Your task to perform on an android device: Show me popular games on the Play Store Image 0: 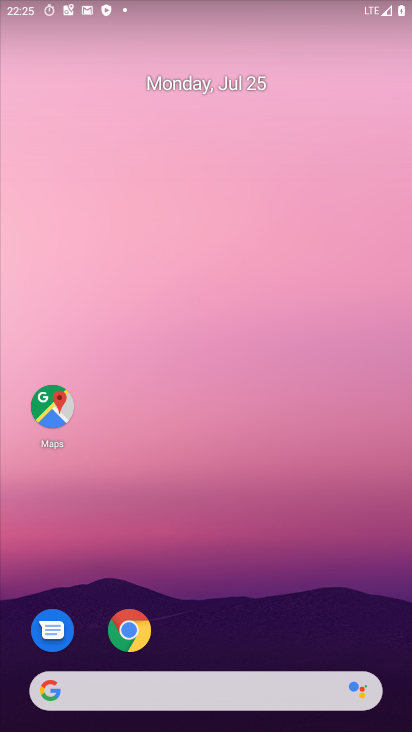
Step 0: press home button
Your task to perform on an android device: Show me popular games on the Play Store Image 1: 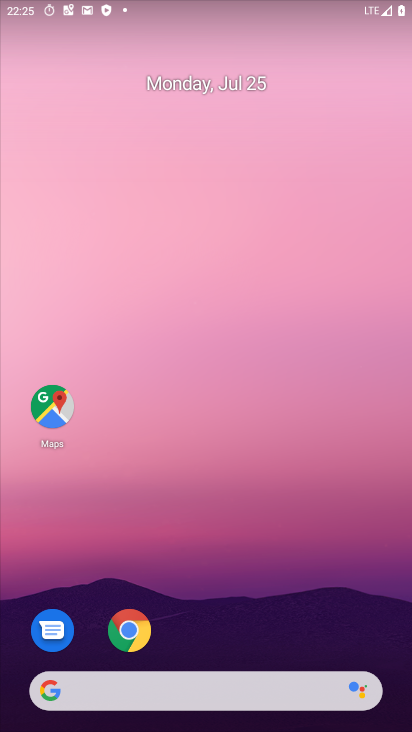
Step 1: drag from (236, 635) to (204, 119)
Your task to perform on an android device: Show me popular games on the Play Store Image 2: 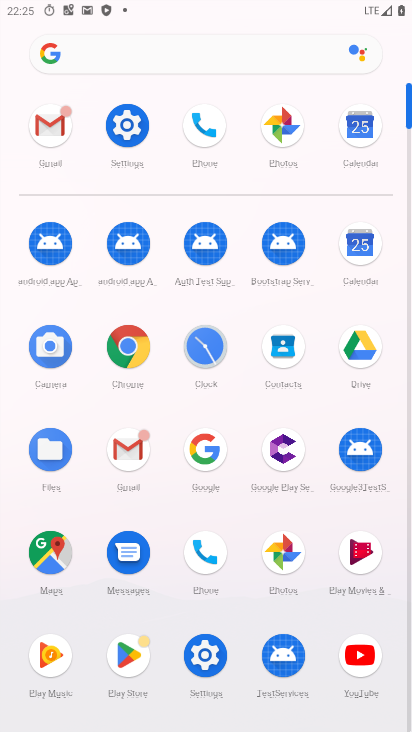
Step 2: click (126, 647)
Your task to perform on an android device: Show me popular games on the Play Store Image 3: 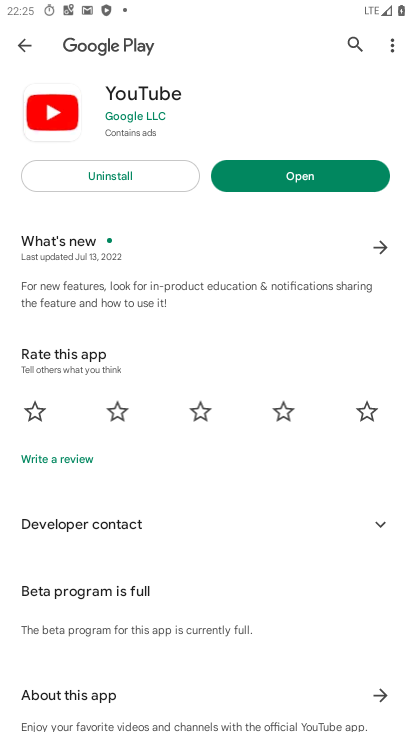
Step 3: click (21, 38)
Your task to perform on an android device: Show me popular games on the Play Store Image 4: 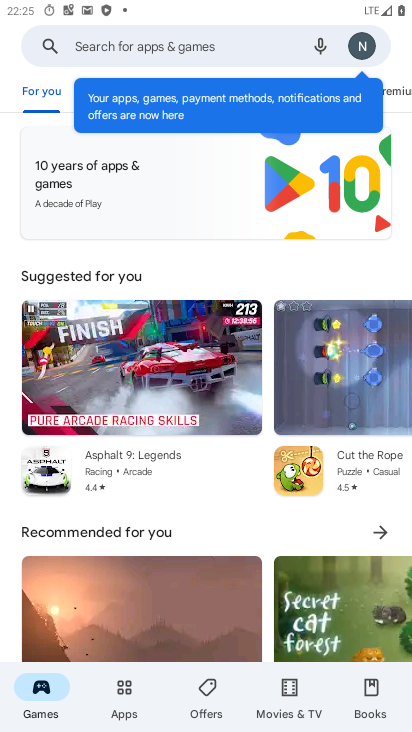
Step 4: task complete